Your task to perform on an android device: change the clock display to show seconds Image 0: 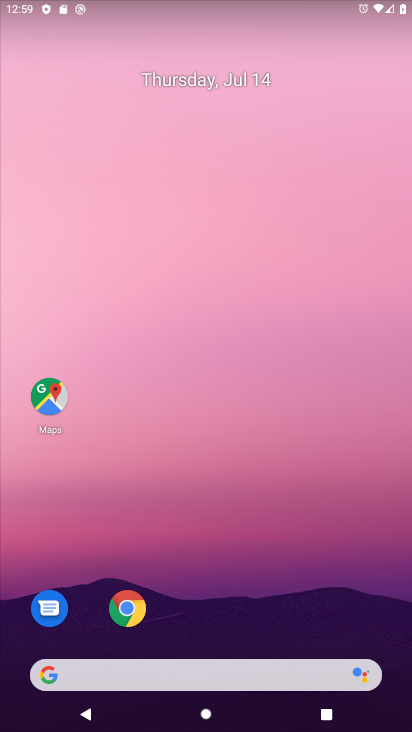
Step 0: drag from (234, 534) to (247, 55)
Your task to perform on an android device: change the clock display to show seconds Image 1: 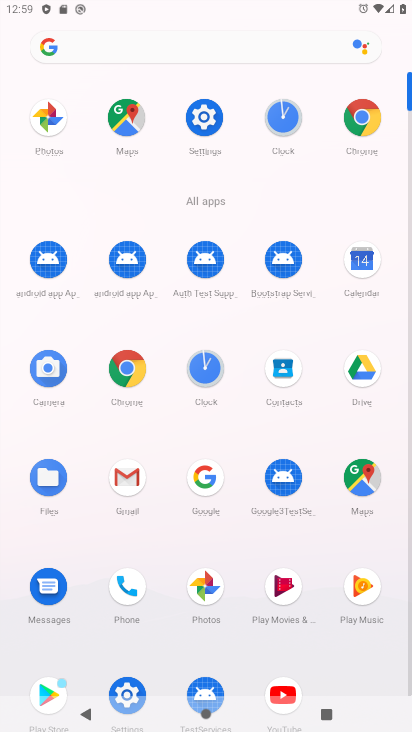
Step 1: click (200, 369)
Your task to perform on an android device: change the clock display to show seconds Image 2: 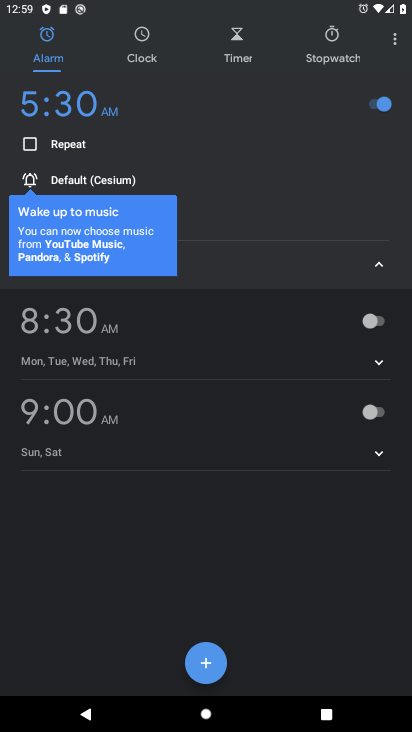
Step 2: click (397, 37)
Your task to perform on an android device: change the clock display to show seconds Image 3: 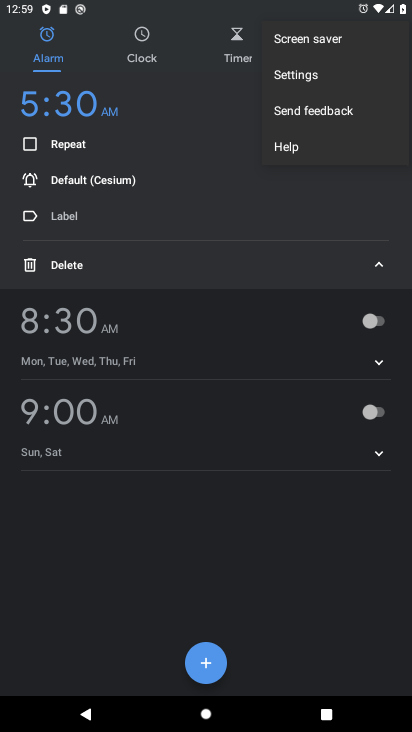
Step 3: click (296, 84)
Your task to perform on an android device: change the clock display to show seconds Image 4: 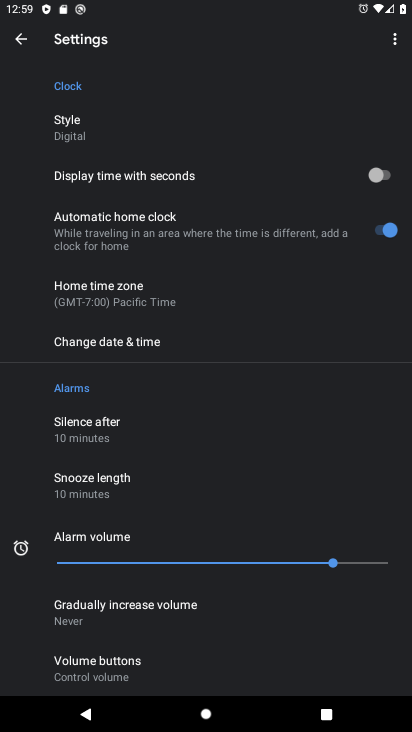
Step 4: click (367, 179)
Your task to perform on an android device: change the clock display to show seconds Image 5: 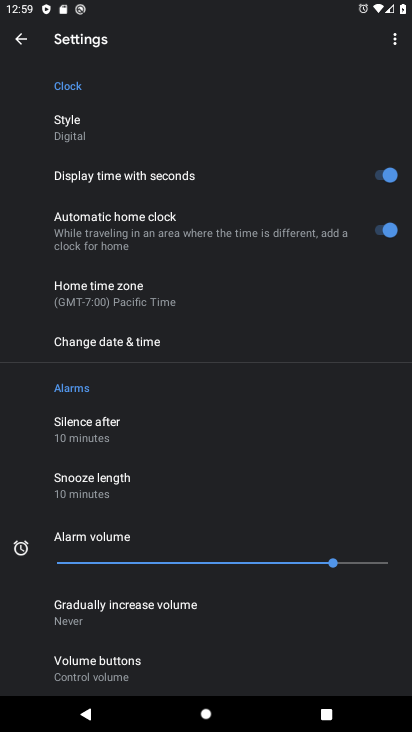
Step 5: task complete